Your task to perform on an android device: Open Google Image 0: 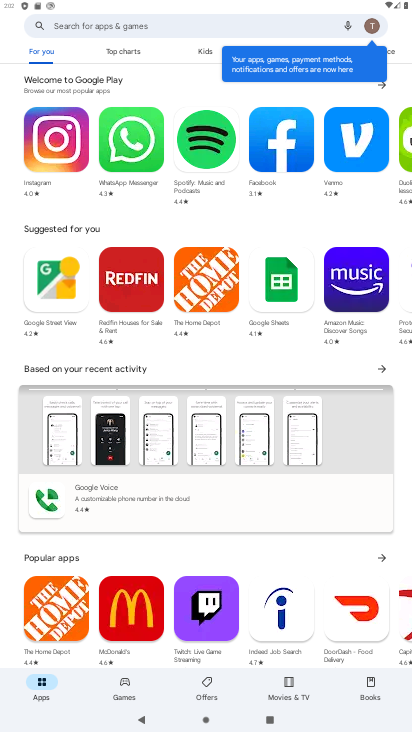
Step 0: press home button
Your task to perform on an android device: Open Google Image 1: 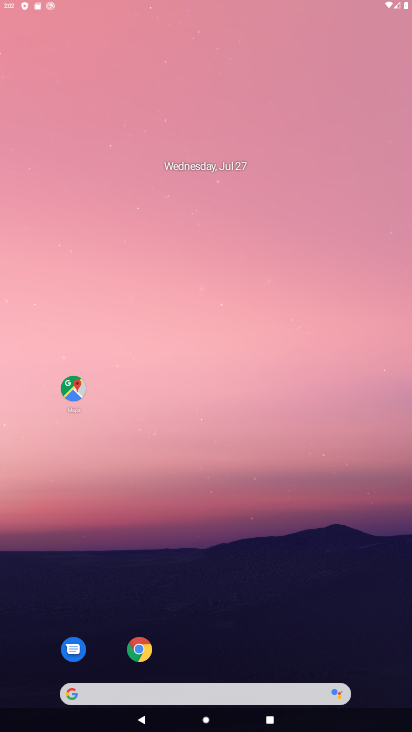
Step 1: drag from (271, 584) to (320, 114)
Your task to perform on an android device: Open Google Image 2: 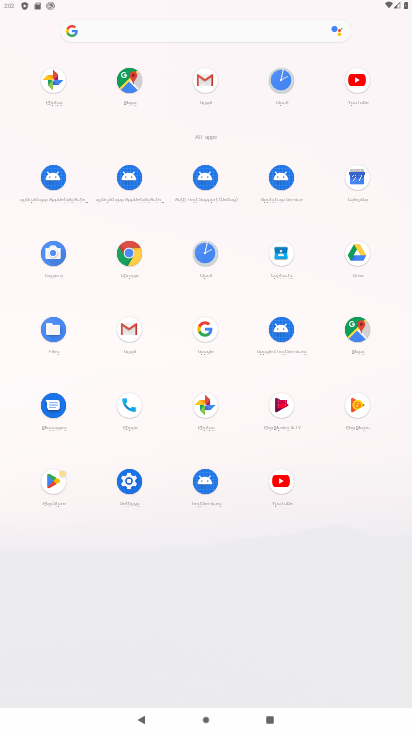
Step 2: click (204, 329)
Your task to perform on an android device: Open Google Image 3: 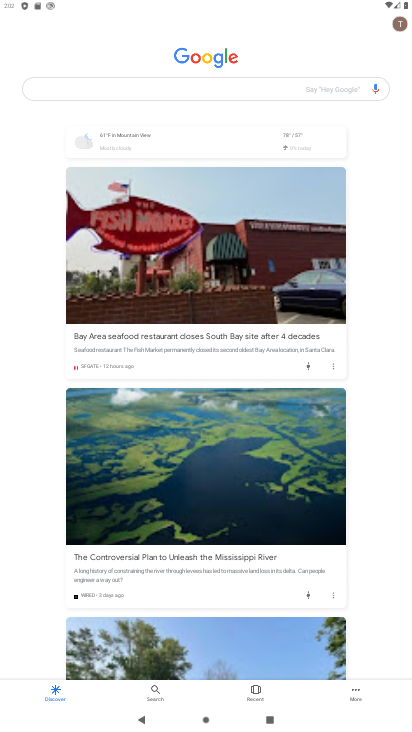
Step 3: task complete